Your task to perform on an android device: change keyboard looks Image 0: 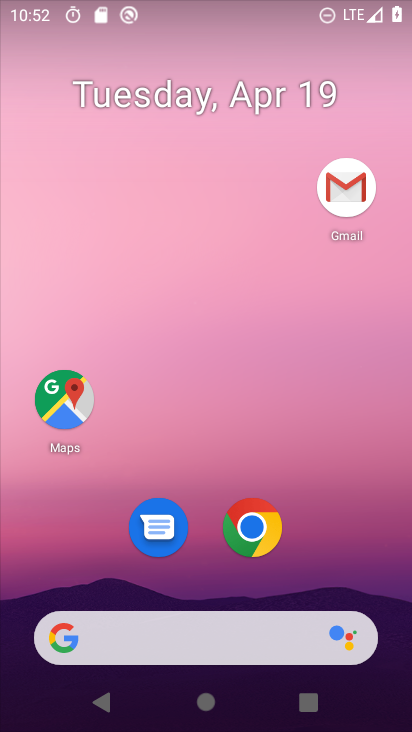
Step 0: drag from (342, 506) to (318, 87)
Your task to perform on an android device: change keyboard looks Image 1: 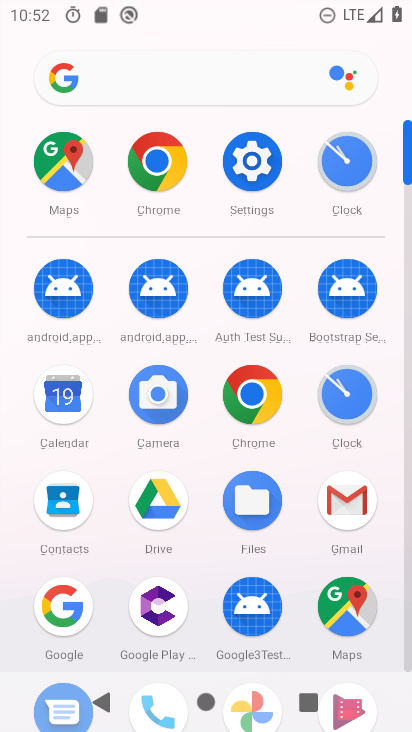
Step 1: click (253, 166)
Your task to perform on an android device: change keyboard looks Image 2: 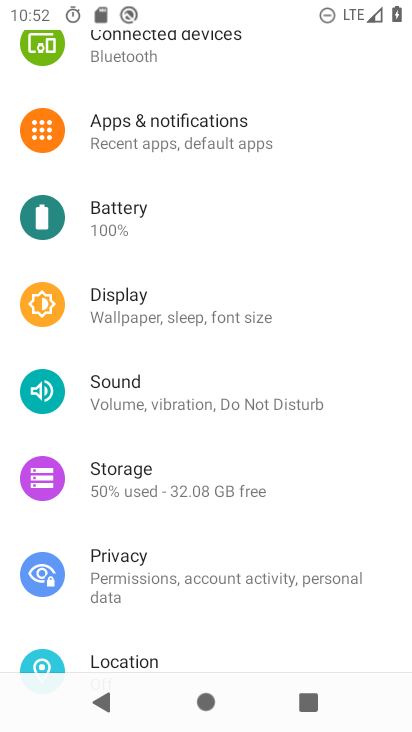
Step 2: drag from (251, 628) to (292, 256)
Your task to perform on an android device: change keyboard looks Image 3: 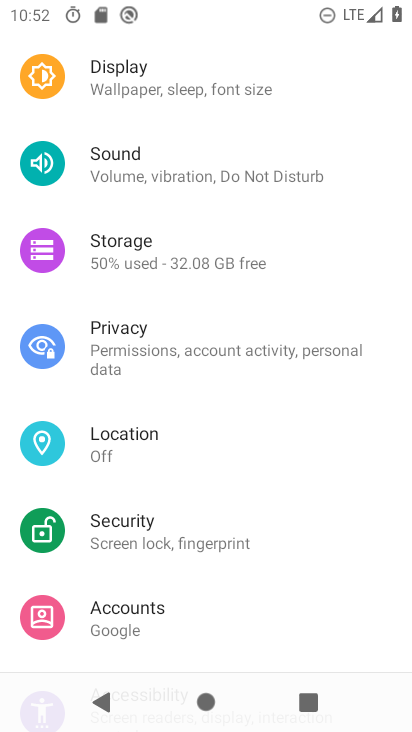
Step 3: drag from (312, 537) to (317, 231)
Your task to perform on an android device: change keyboard looks Image 4: 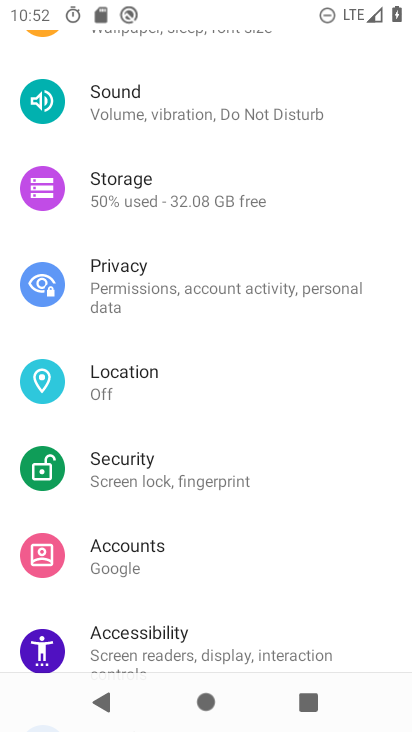
Step 4: drag from (288, 467) to (305, 214)
Your task to perform on an android device: change keyboard looks Image 5: 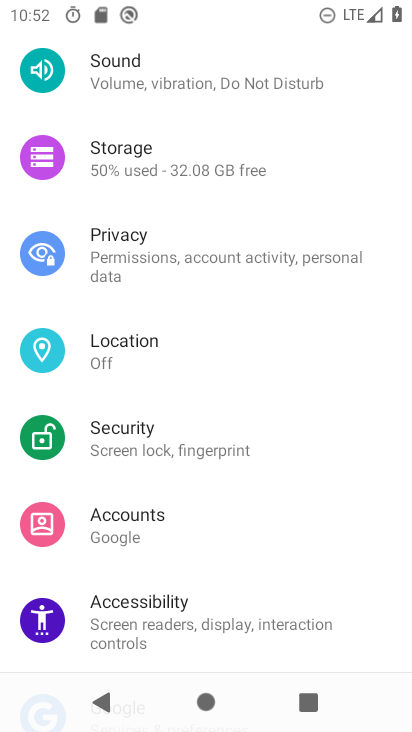
Step 5: drag from (271, 537) to (279, 194)
Your task to perform on an android device: change keyboard looks Image 6: 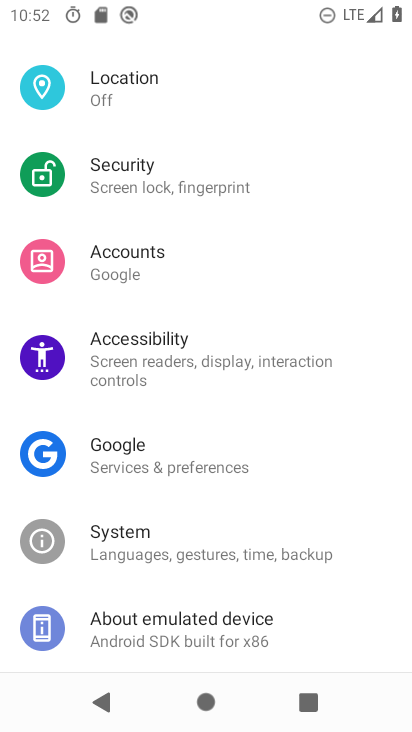
Step 6: drag from (264, 509) to (274, 230)
Your task to perform on an android device: change keyboard looks Image 7: 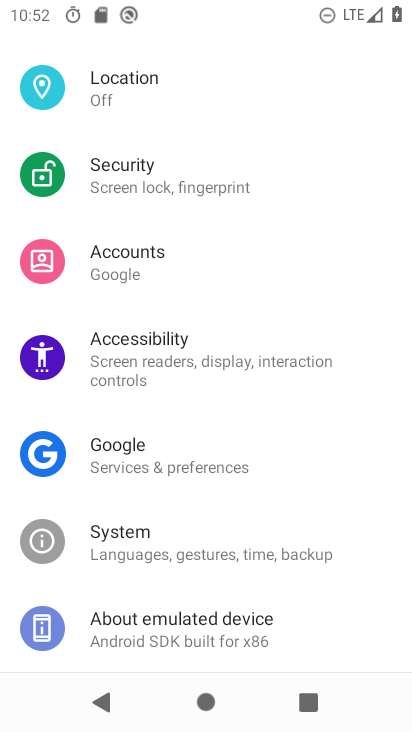
Step 7: click (230, 555)
Your task to perform on an android device: change keyboard looks Image 8: 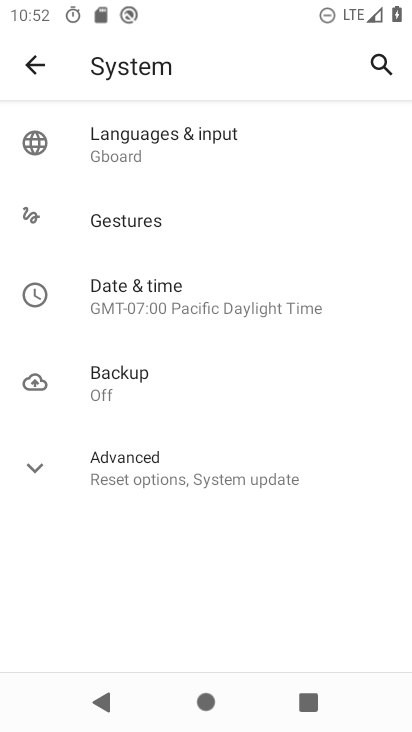
Step 8: click (190, 122)
Your task to perform on an android device: change keyboard looks Image 9: 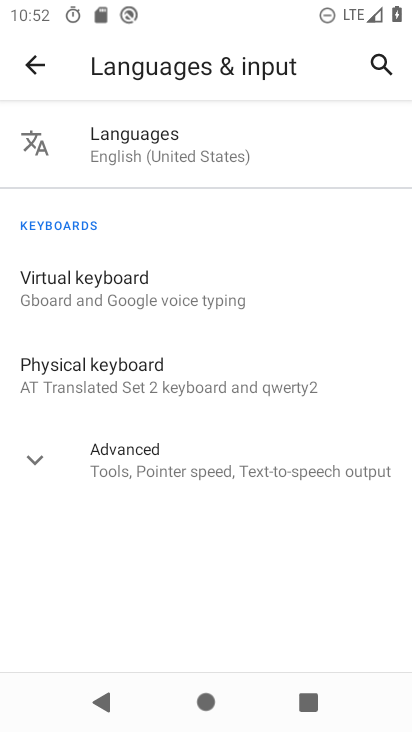
Step 9: click (166, 293)
Your task to perform on an android device: change keyboard looks Image 10: 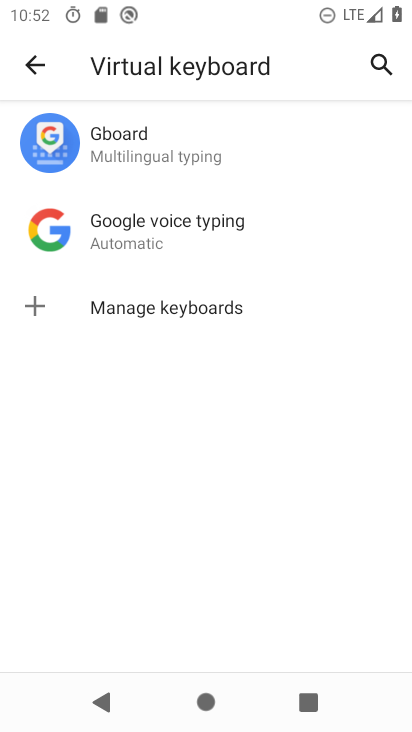
Step 10: click (201, 156)
Your task to perform on an android device: change keyboard looks Image 11: 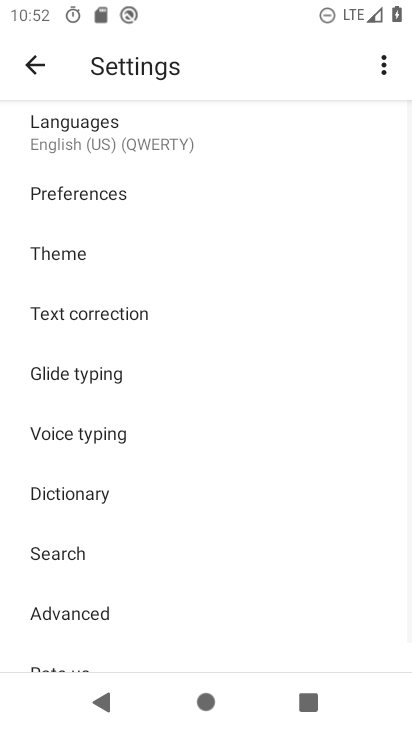
Step 11: click (99, 262)
Your task to perform on an android device: change keyboard looks Image 12: 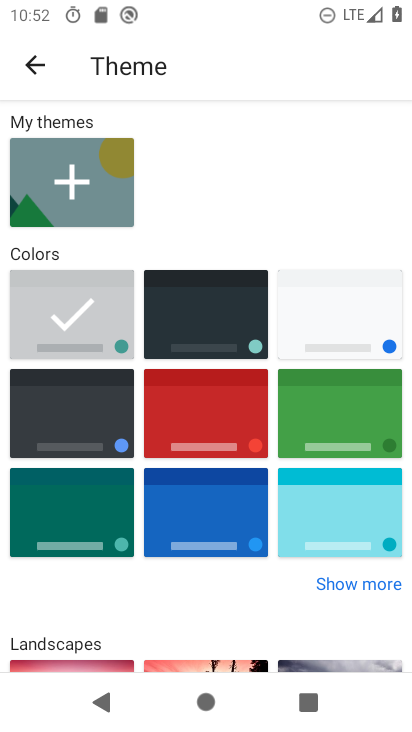
Step 12: click (171, 528)
Your task to perform on an android device: change keyboard looks Image 13: 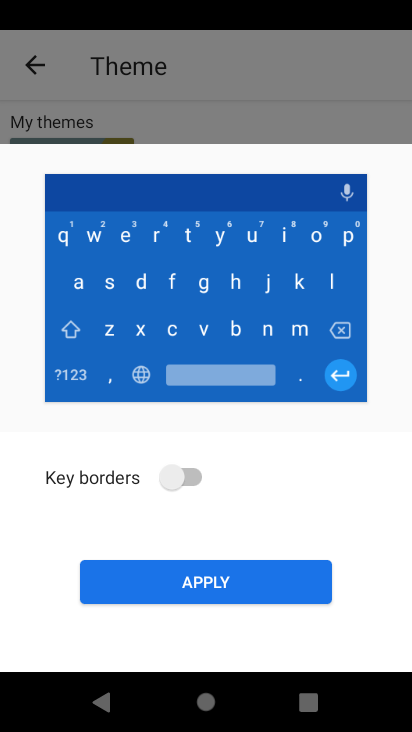
Step 13: click (207, 589)
Your task to perform on an android device: change keyboard looks Image 14: 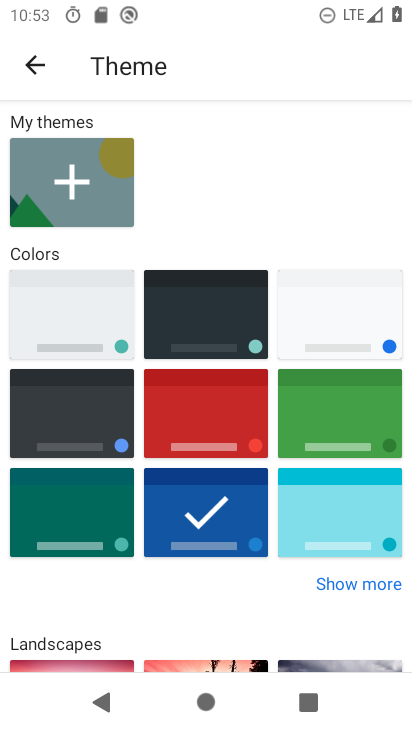
Step 14: task complete